Your task to perform on an android device: Go to Android settings Image 0: 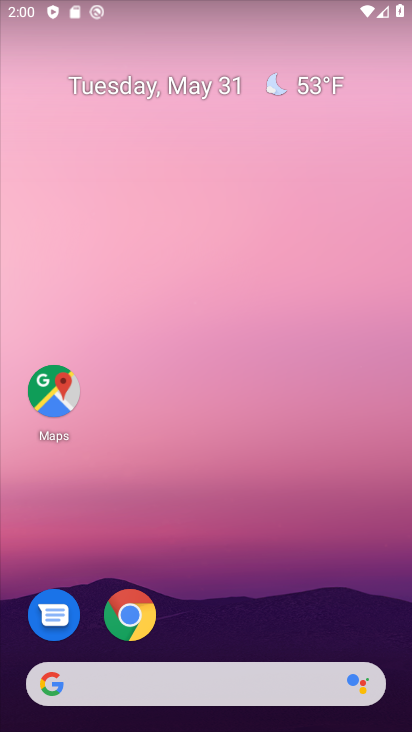
Step 0: drag from (228, 632) to (290, 102)
Your task to perform on an android device: Go to Android settings Image 1: 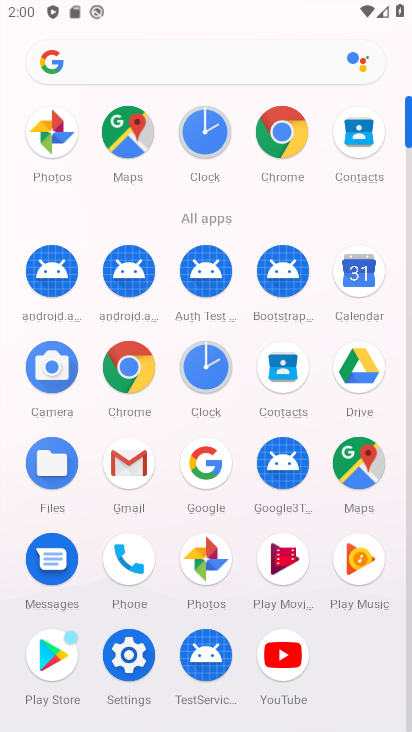
Step 1: click (133, 656)
Your task to perform on an android device: Go to Android settings Image 2: 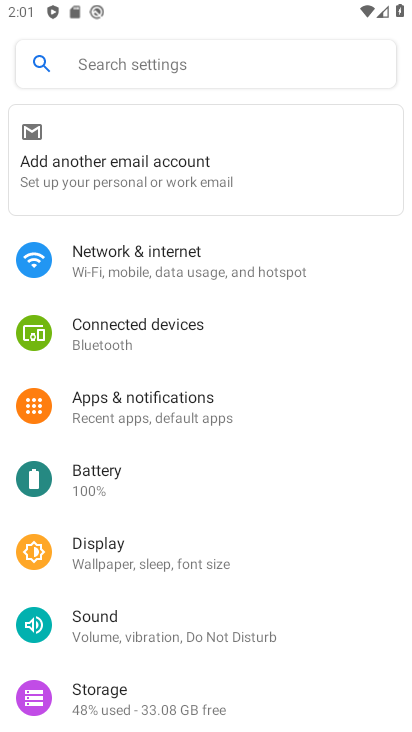
Step 2: drag from (159, 614) to (307, 82)
Your task to perform on an android device: Go to Android settings Image 3: 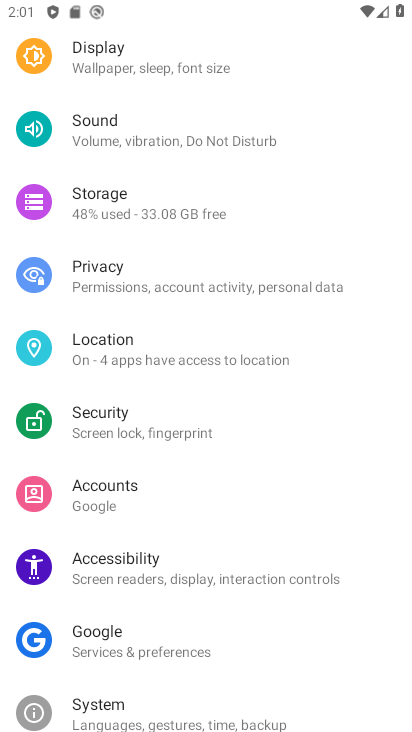
Step 3: drag from (212, 603) to (257, 71)
Your task to perform on an android device: Go to Android settings Image 4: 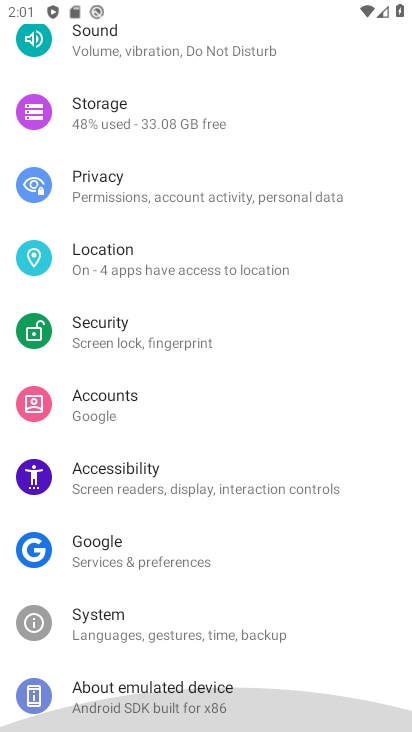
Step 4: drag from (157, 590) to (227, 109)
Your task to perform on an android device: Go to Android settings Image 5: 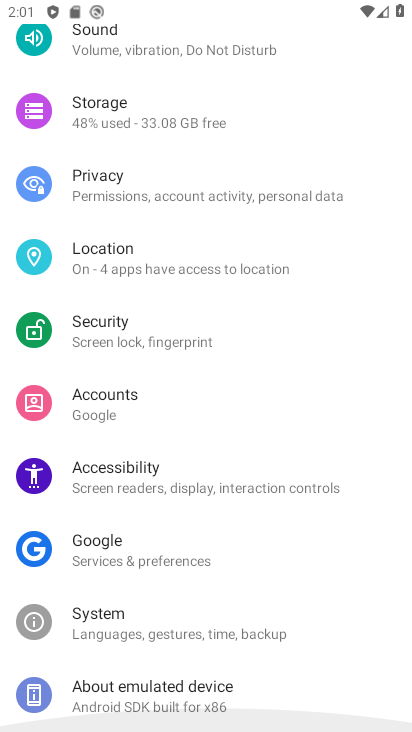
Step 5: click (101, 691)
Your task to perform on an android device: Go to Android settings Image 6: 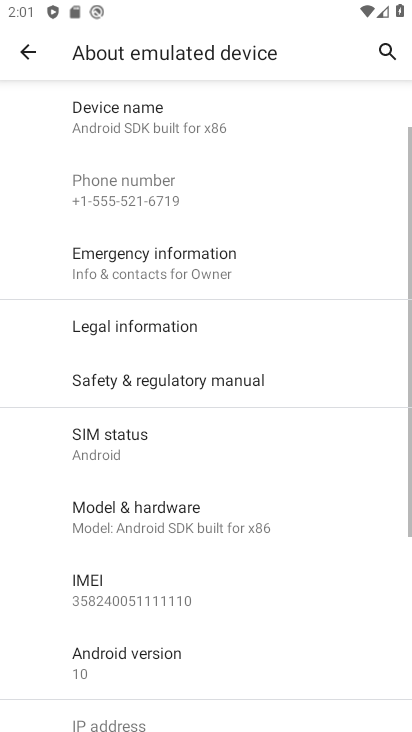
Step 6: task complete